Your task to perform on an android device: create a new album in the google photos Image 0: 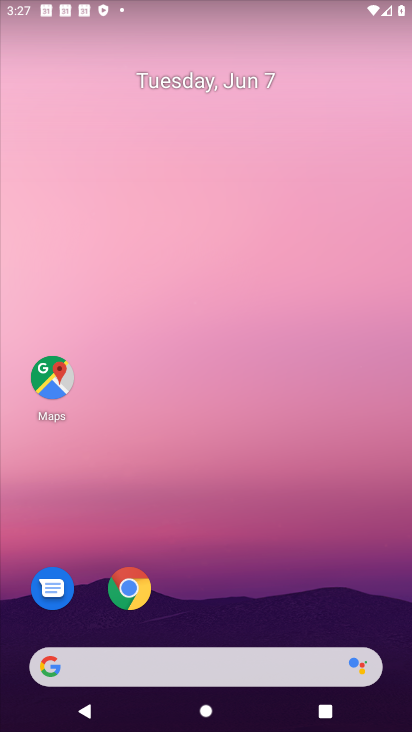
Step 0: task complete